Your task to perform on an android device: search for starred emails in the gmail app Image 0: 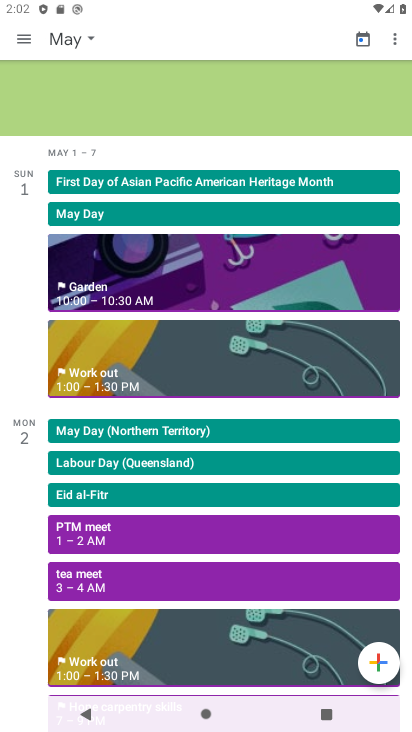
Step 0: press home button
Your task to perform on an android device: search for starred emails in the gmail app Image 1: 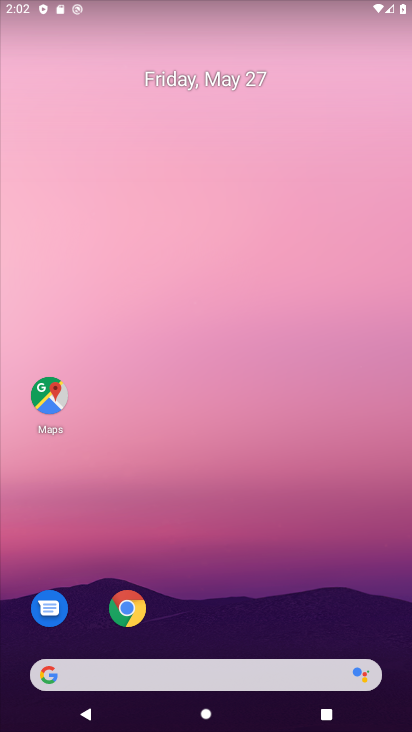
Step 1: drag from (273, 582) to (229, 162)
Your task to perform on an android device: search for starred emails in the gmail app Image 2: 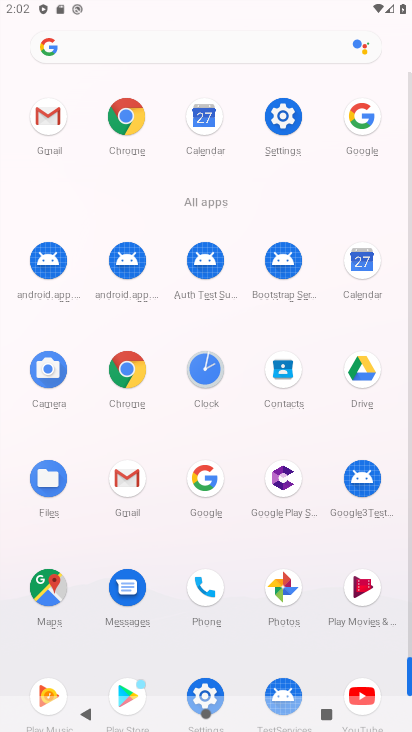
Step 2: click (51, 117)
Your task to perform on an android device: search for starred emails in the gmail app Image 3: 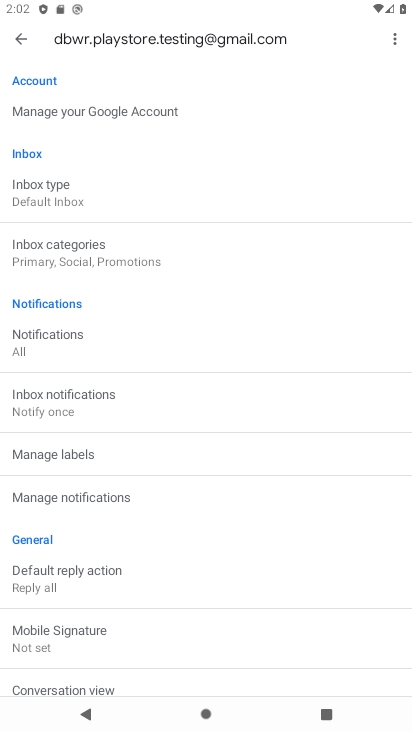
Step 3: click (16, 34)
Your task to perform on an android device: search for starred emails in the gmail app Image 4: 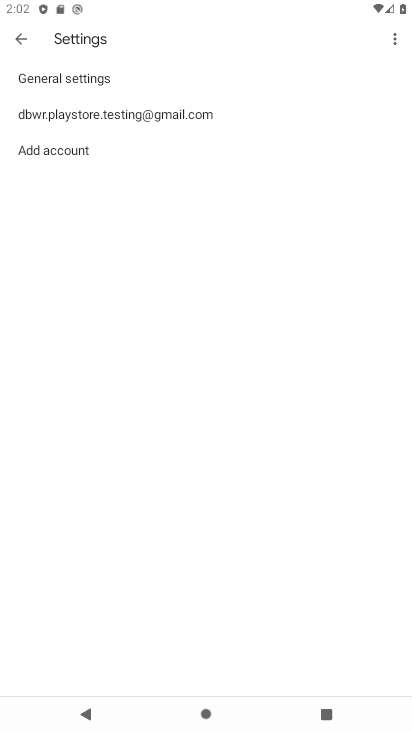
Step 4: click (16, 34)
Your task to perform on an android device: search for starred emails in the gmail app Image 5: 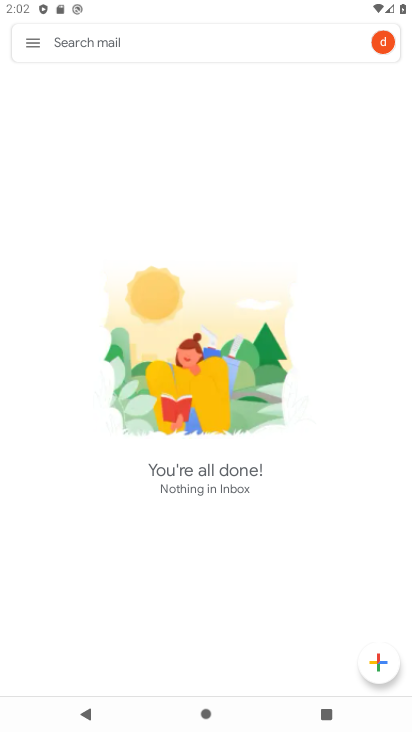
Step 5: click (23, 44)
Your task to perform on an android device: search for starred emails in the gmail app Image 6: 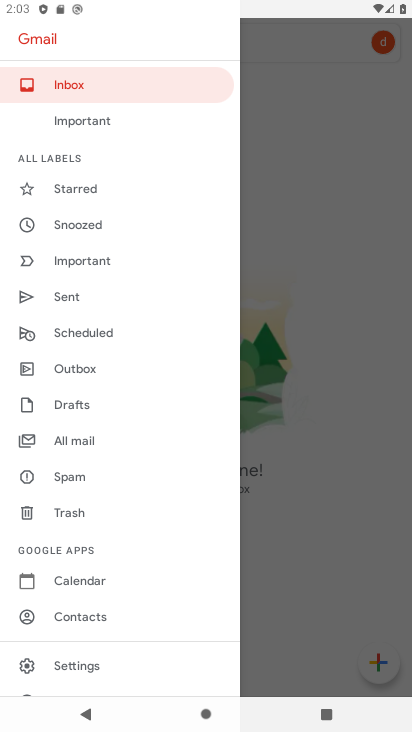
Step 6: click (87, 187)
Your task to perform on an android device: search for starred emails in the gmail app Image 7: 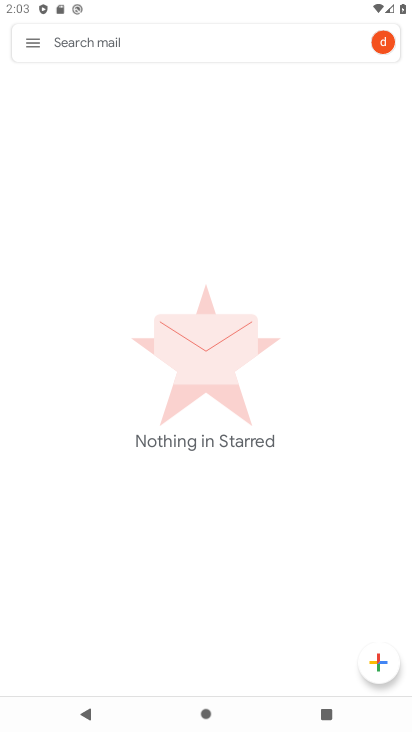
Step 7: task complete